Your task to perform on an android device: Go to notification settings Image 0: 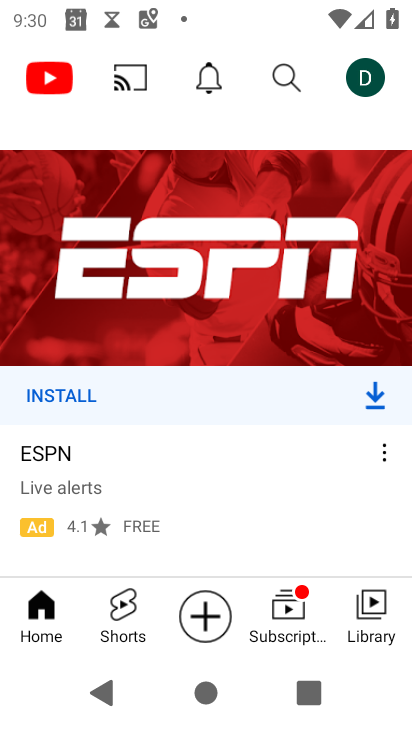
Step 0: press home button
Your task to perform on an android device: Go to notification settings Image 1: 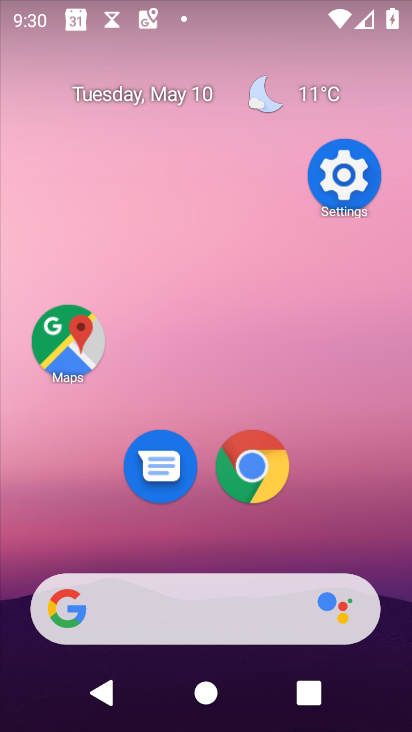
Step 1: drag from (347, 524) to (357, 8)
Your task to perform on an android device: Go to notification settings Image 2: 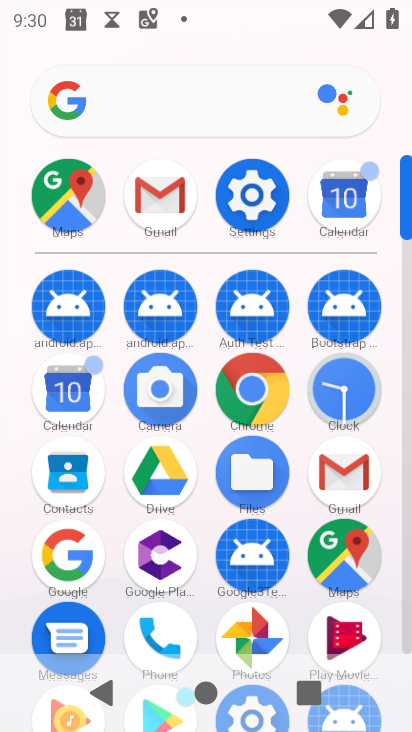
Step 2: click (253, 182)
Your task to perform on an android device: Go to notification settings Image 3: 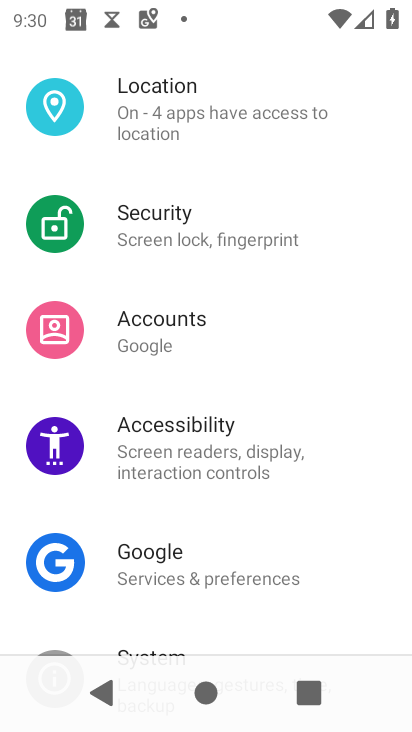
Step 3: drag from (194, 205) to (228, 289)
Your task to perform on an android device: Go to notification settings Image 4: 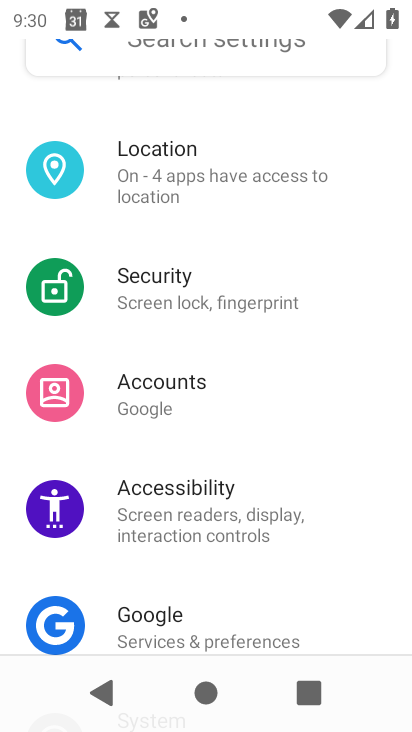
Step 4: drag from (212, 217) to (179, 312)
Your task to perform on an android device: Go to notification settings Image 5: 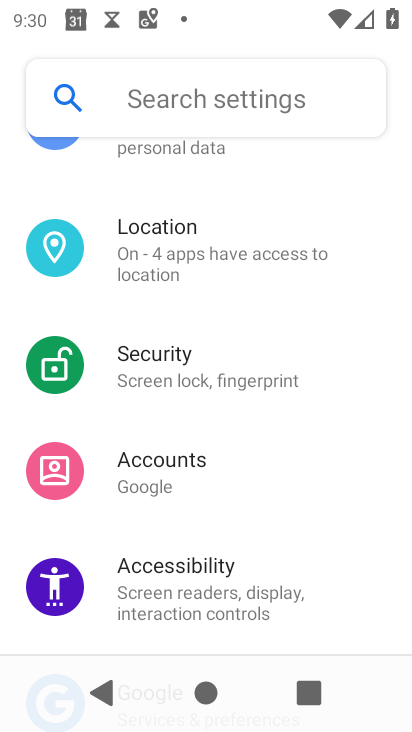
Step 5: drag from (162, 231) to (155, 299)
Your task to perform on an android device: Go to notification settings Image 6: 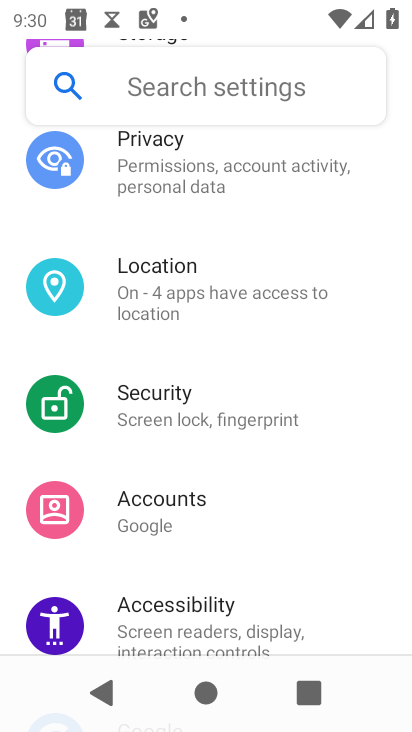
Step 6: drag from (162, 236) to (164, 308)
Your task to perform on an android device: Go to notification settings Image 7: 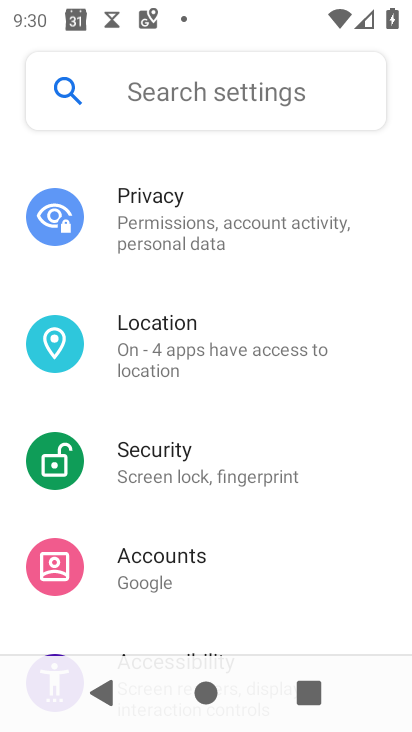
Step 7: drag from (183, 195) to (220, 304)
Your task to perform on an android device: Go to notification settings Image 8: 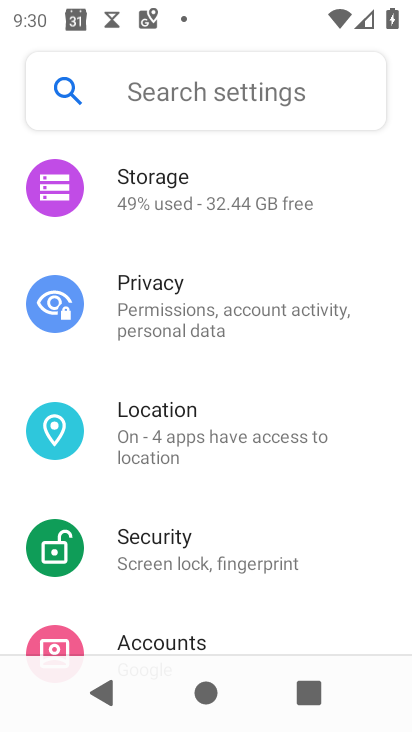
Step 8: drag from (227, 212) to (266, 364)
Your task to perform on an android device: Go to notification settings Image 9: 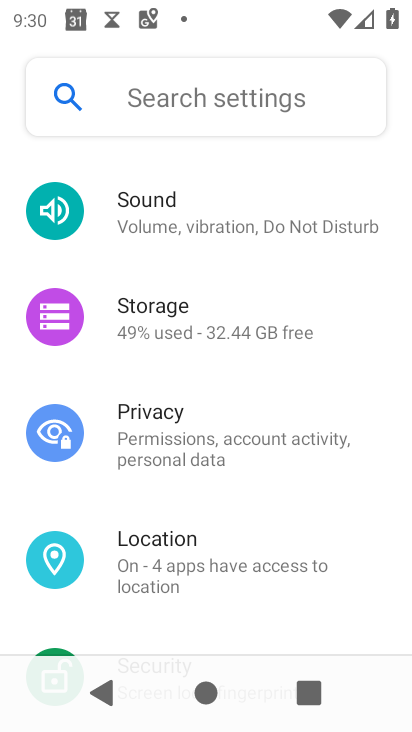
Step 9: drag from (262, 273) to (276, 369)
Your task to perform on an android device: Go to notification settings Image 10: 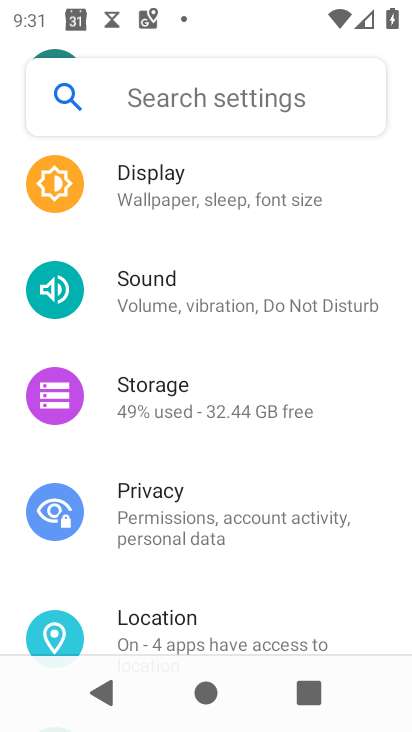
Step 10: drag from (251, 277) to (170, 365)
Your task to perform on an android device: Go to notification settings Image 11: 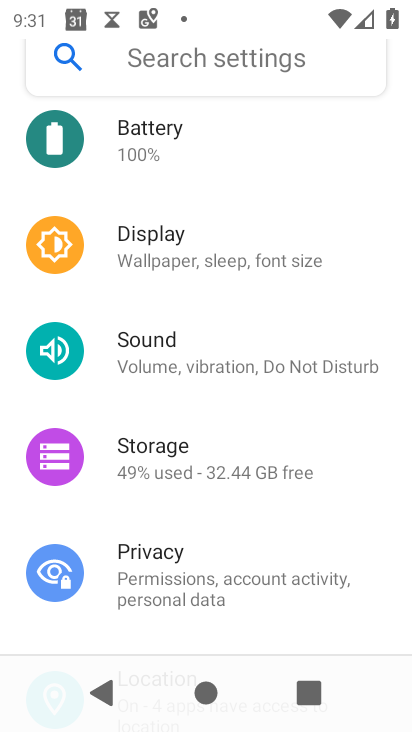
Step 11: drag from (174, 250) to (186, 341)
Your task to perform on an android device: Go to notification settings Image 12: 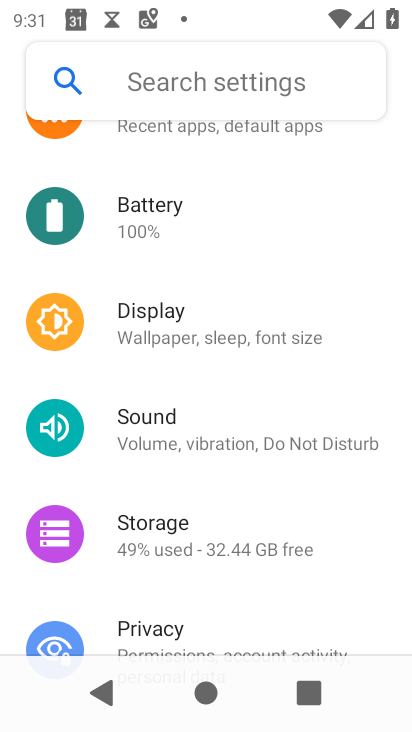
Step 12: drag from (179, 254) to (192, 314)
Your task to perform on an android device: Go to notification settings Image 13: 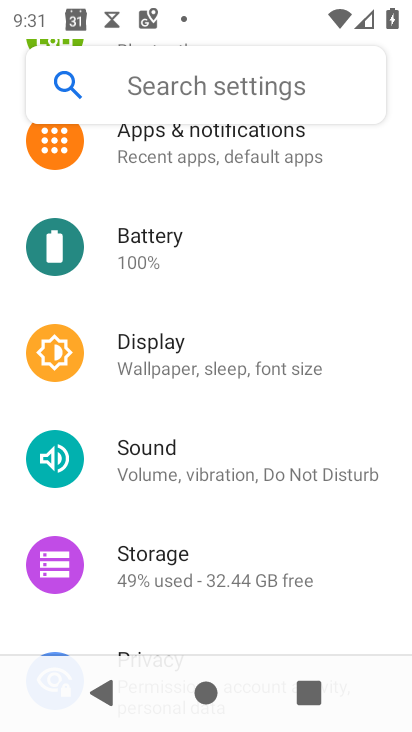
Step 13: drag from (178, 220) to (196, 311)
Your task to perform on an android device: Go to notification settings Image 14: 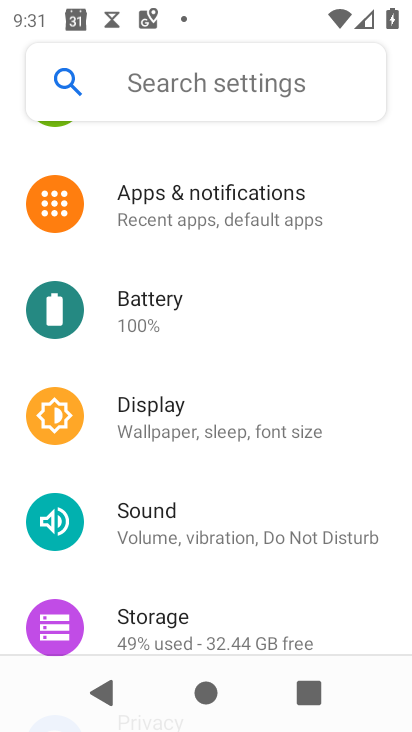
Step 14: click (196, 223)
Your task to perform on an android device: Go to notification settings Image 15: 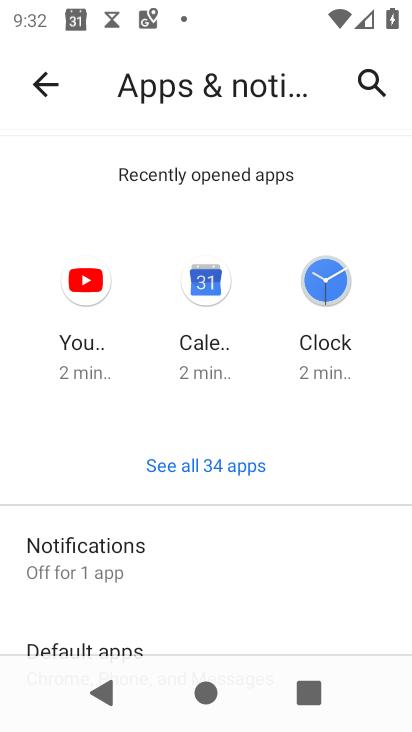
Step 15: click (180, 541)
Your task to perform on an android device: Go to notification settings Image 16: 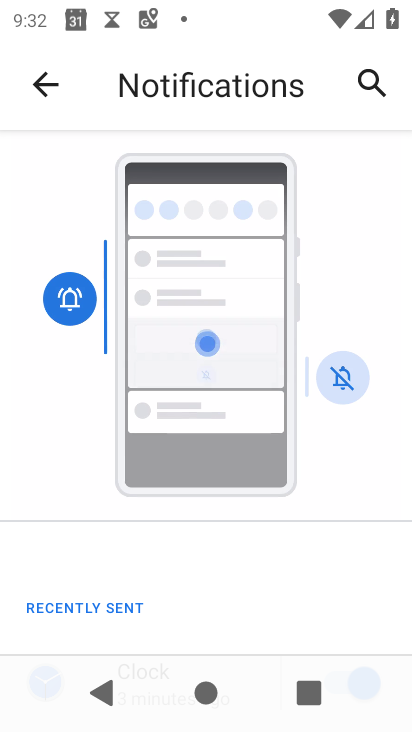
Step 16: task complete